Your task to perform on an android device: Open display settings Image 0: 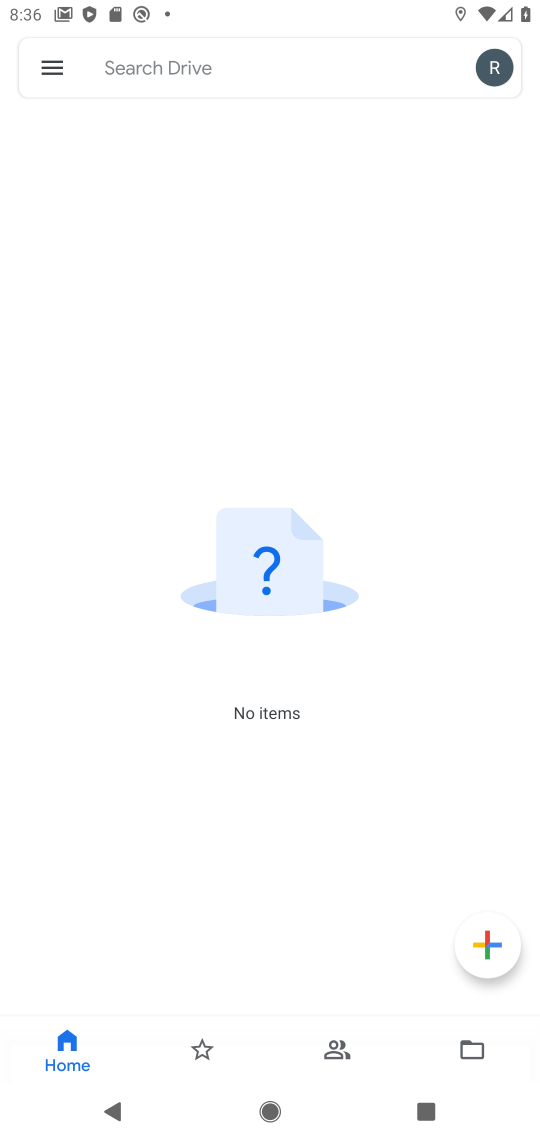
Step 0: press home button
Your task to perform on an android device: Open display settings Image 1: 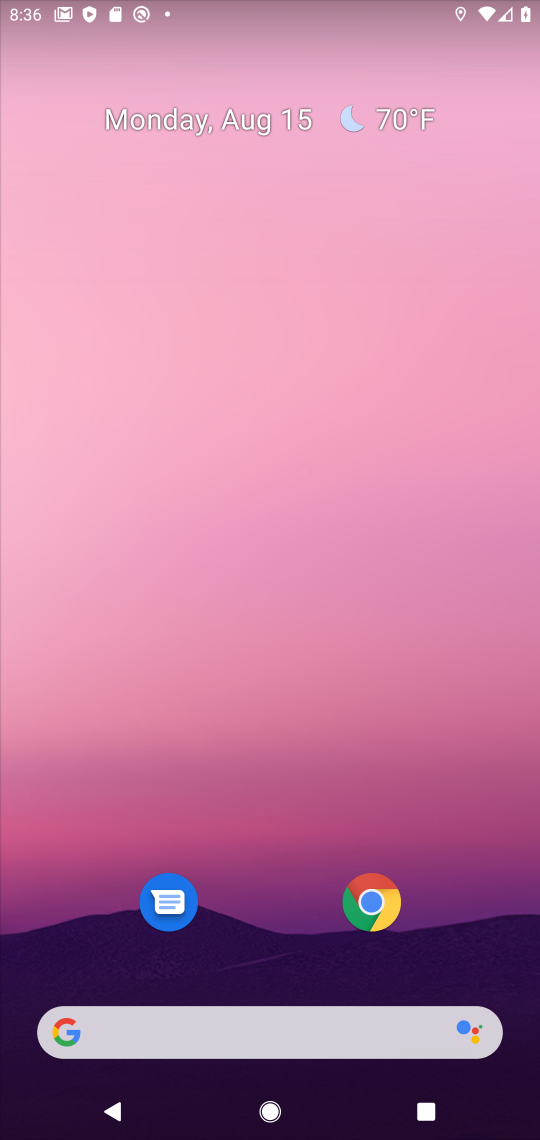
Step 1: drag from (516, 946) to (323, 68)
Your task to perform on an android device: Open display settings Image 2: 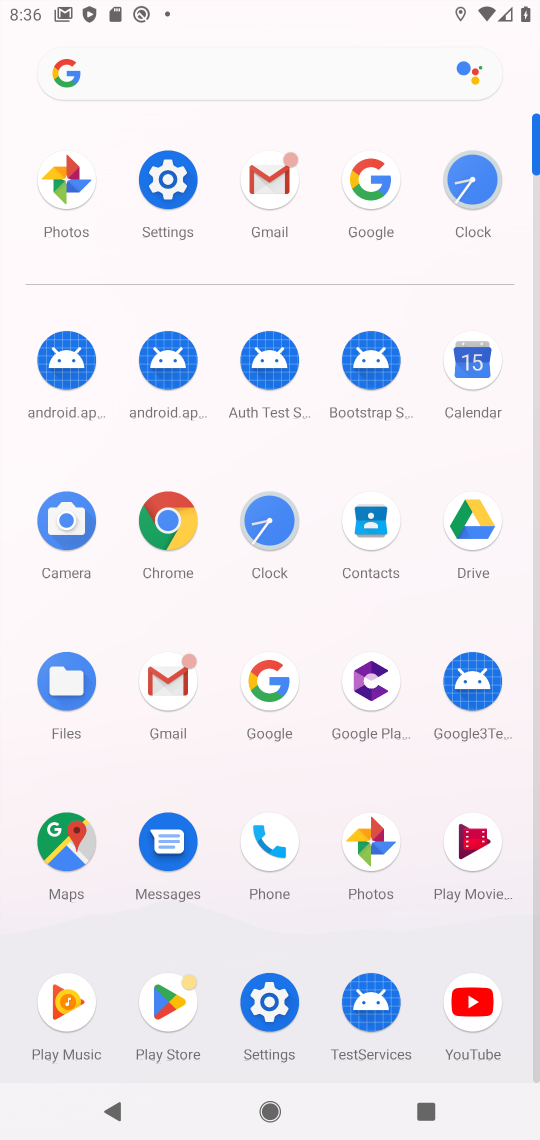
Step 2: click (254, 987)
Your task to perform on an android device: Open display settings Image 3: 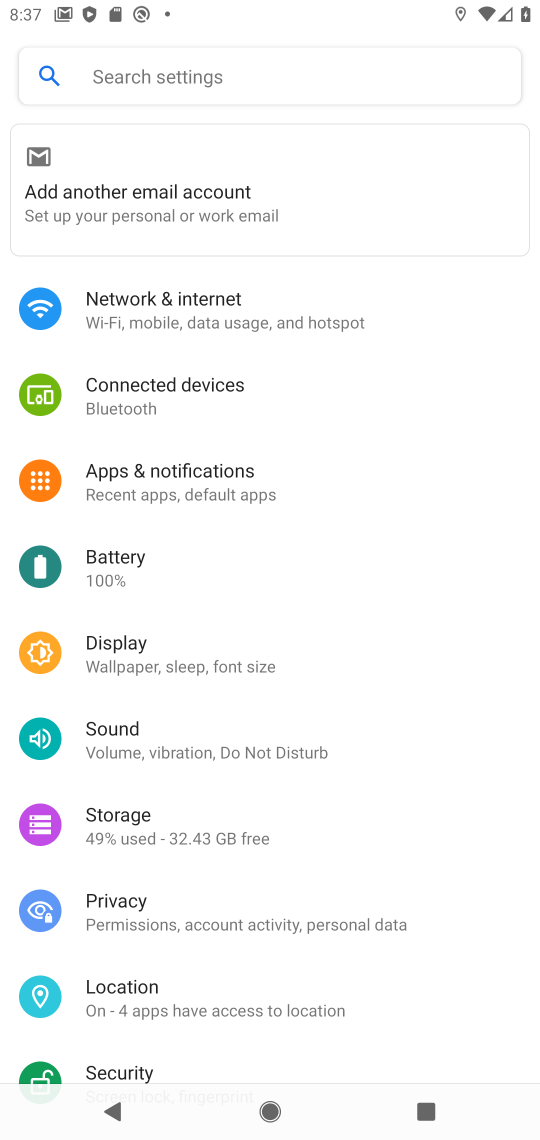
Step 3: click (142, 671)
Your task to perform on an android device: Open display settings Image 4: 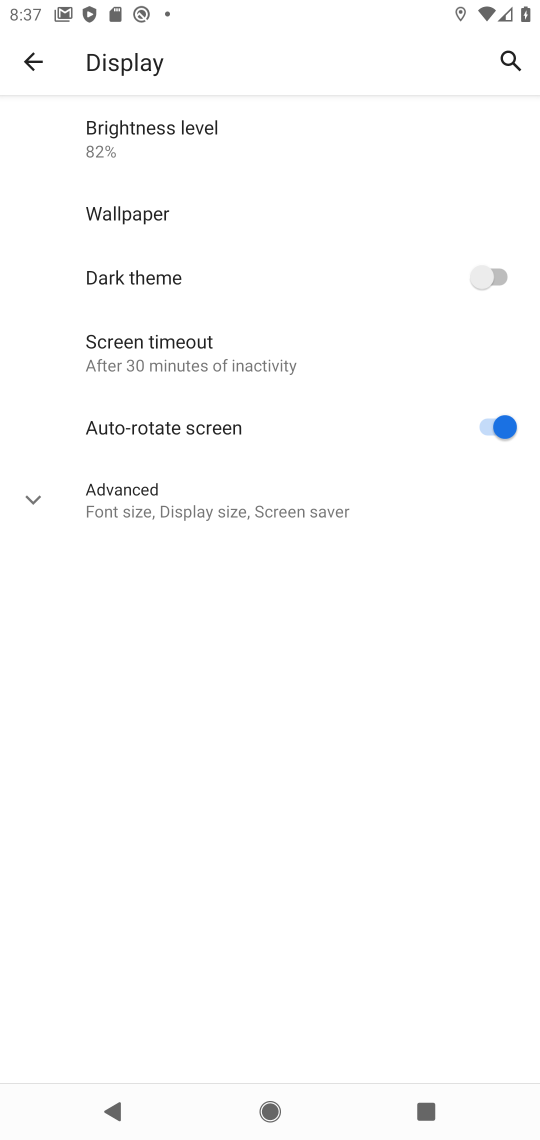
Step 4: task complete